Your task to perform on an android device: open chrome and create a bookmark for the current page Image 0: 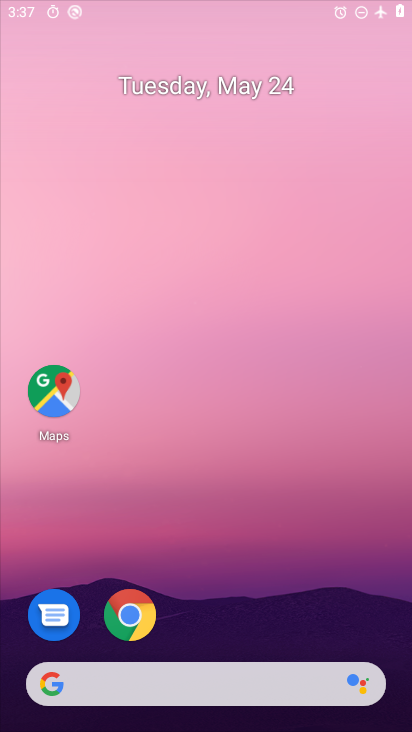
Step 0: drag from (227, 635) to (236, 377)
Your task to perform on an android device: open chrome and create a bookmark for the current page Image 1: 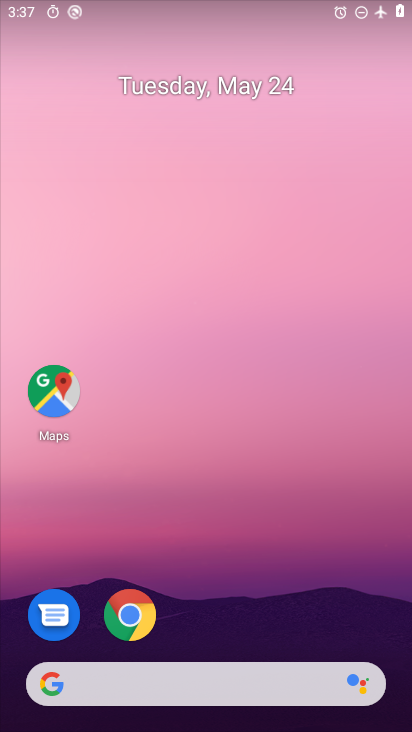
Step 1: drag from (337, 670) to (303, 278)
Your task to perform on an android device: open chrome and create a bookmark for the current page Image 2: 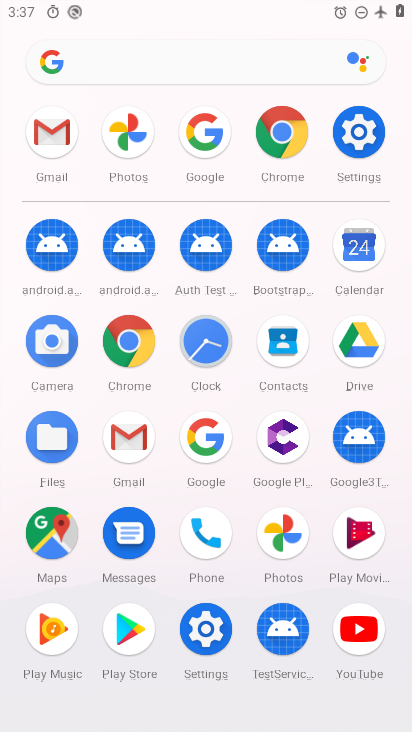
Step 2: click (281, 126)
Your task to perform on an android device: open chrome and create a bookmark for the current page Image 3: 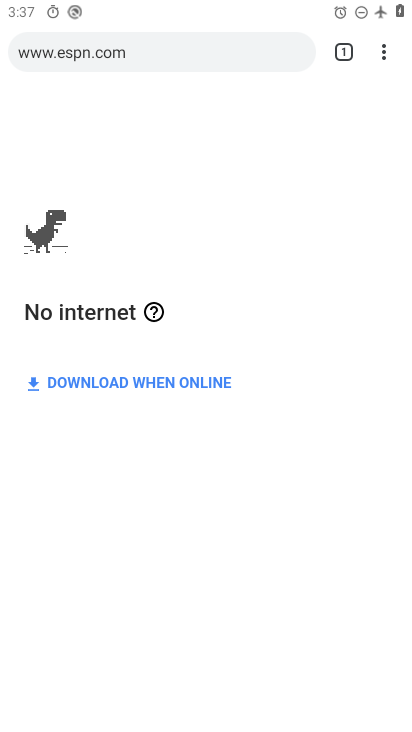
Step 3: click (391, 53)
Your task to perform on an android device: open chrome and create a bookmark for the current page Image 4: 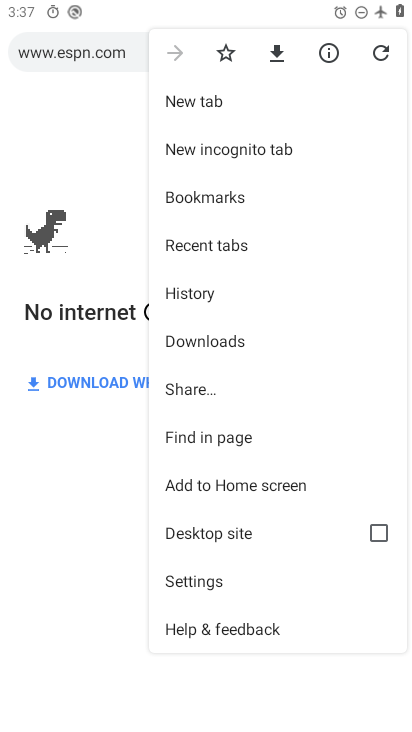
Step 4: click (229, 51)
Your task to perform on an android device: open chrome and create a bookmark for the current page Image 5: 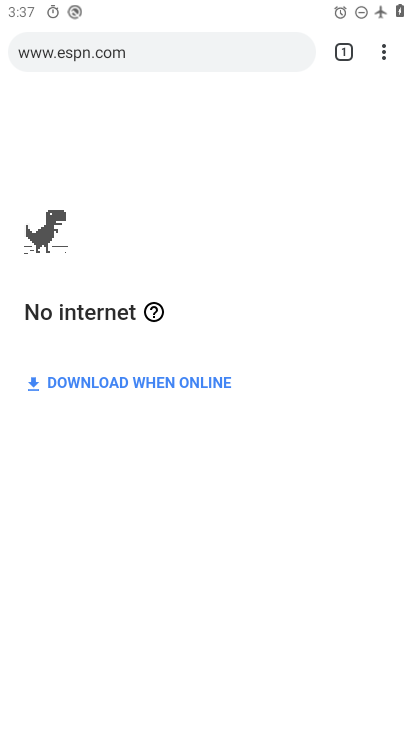
Step 5: task complete